Your task to perform on an android device: Open Maps and search for coffee Image 0: 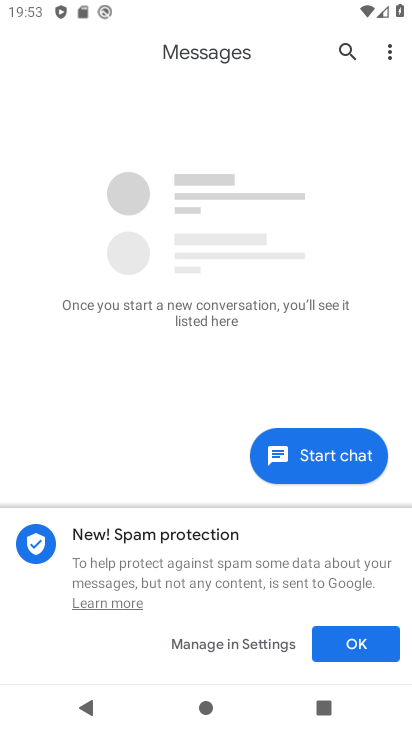
Step 0: press home button
Your task to perform on an android device: Open Maps and search for coffee Image 1: 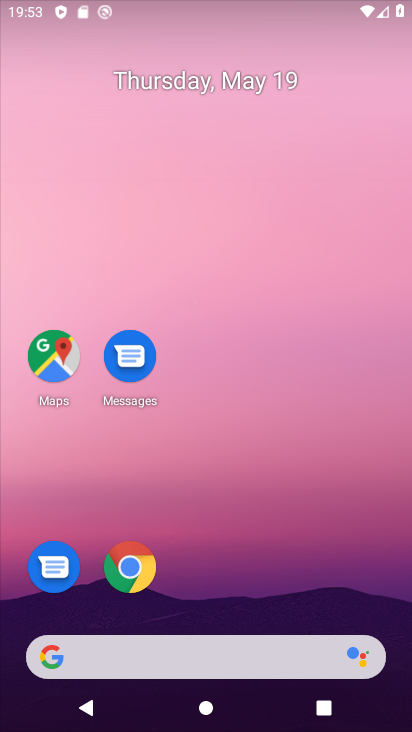
Step 1: drag from (216, 643) to (171, 151)
Your task to perform on an android device: Open Maps and search for coffee Image 2: 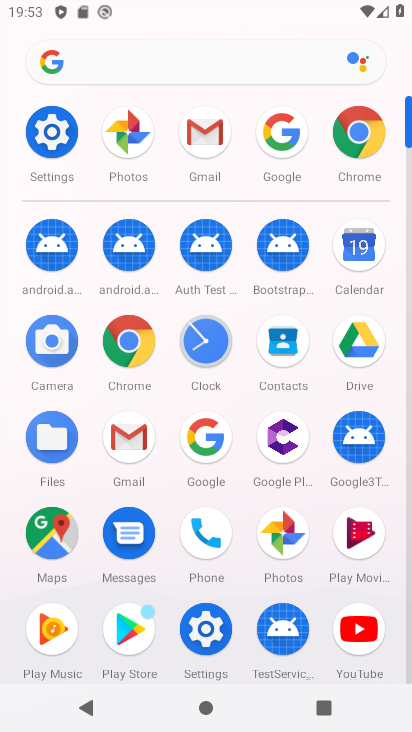
Step 2: click (44, 548)
Your task to perform on an android device: Open Maps and search for coffee Image 3: 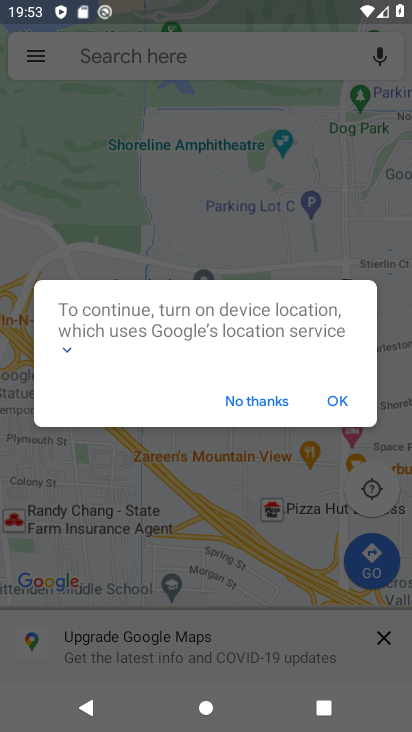
Step 3: click (188, 66)
Your task to perform on an android device: Open Maps and search for coffee Image 4: 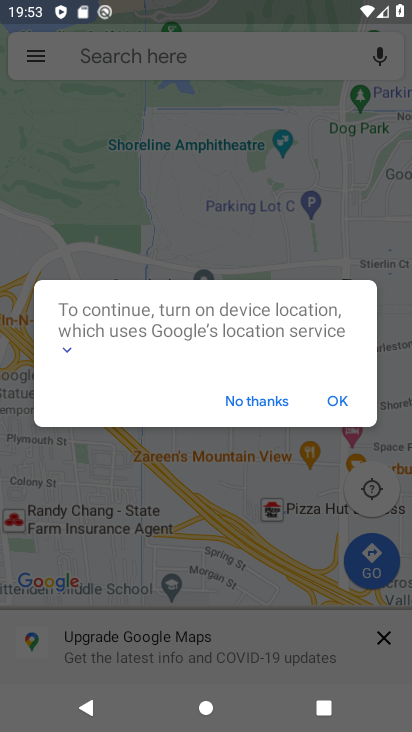
Step 4: click (338, 401)
Your task to perform on an android device: Open Maps and search for coffee Image 5: 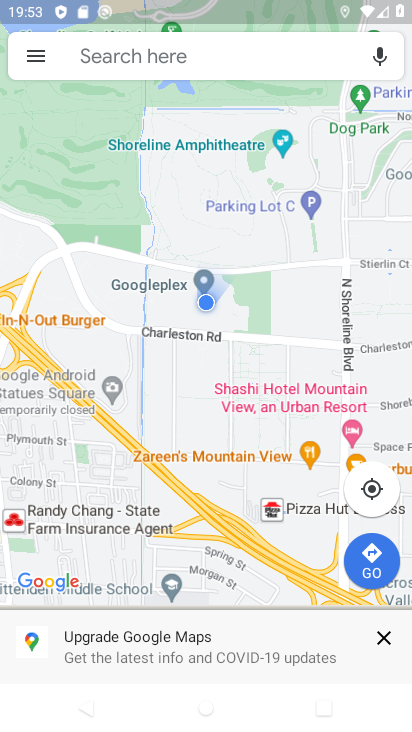
Step 5: click (199, 59)
Your task to perform on an android device: Open Maps and search for coffee Image 6: 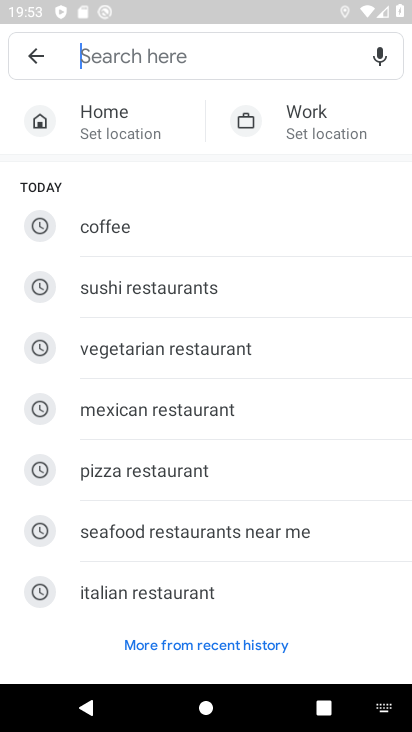
Step 6: click (143, 245)
Your task to perform on an android device: Open Maps and search for coffee Image 7: 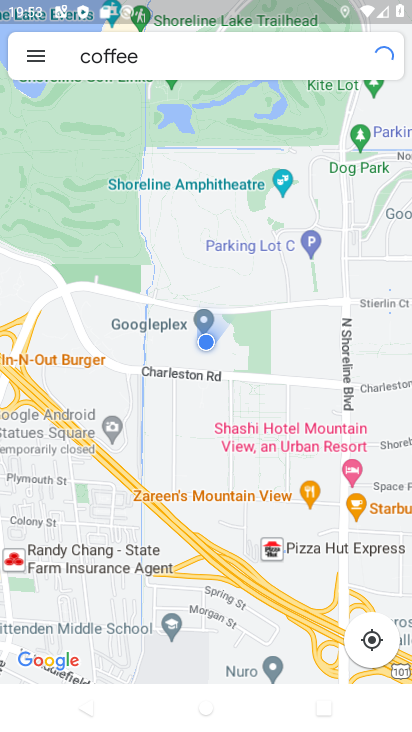
Step 7: task complete